Your task to perform on an android device: Open display settings Image 0: 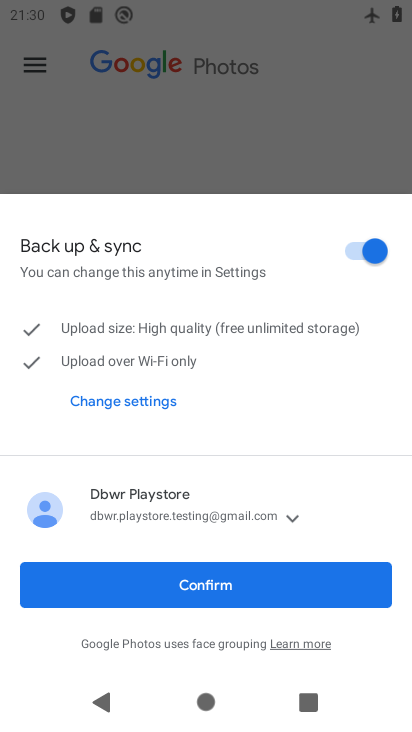
Step 0: press home button
Your task to perform on an android device: Open display settings Image 1: 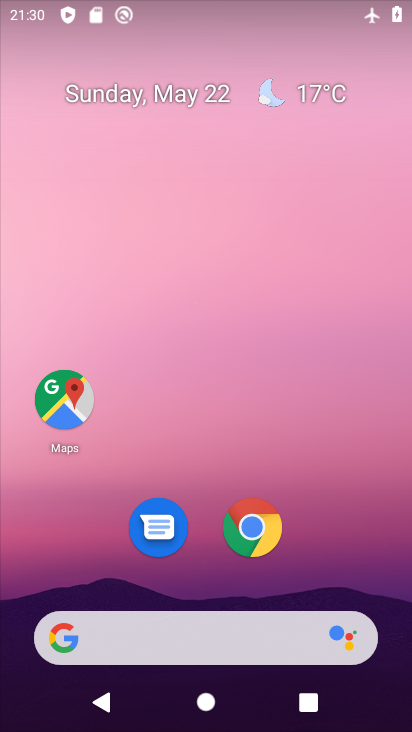
Step 1: click (236, 43)
Your task to perform on an android device: Open display settings Image 2: 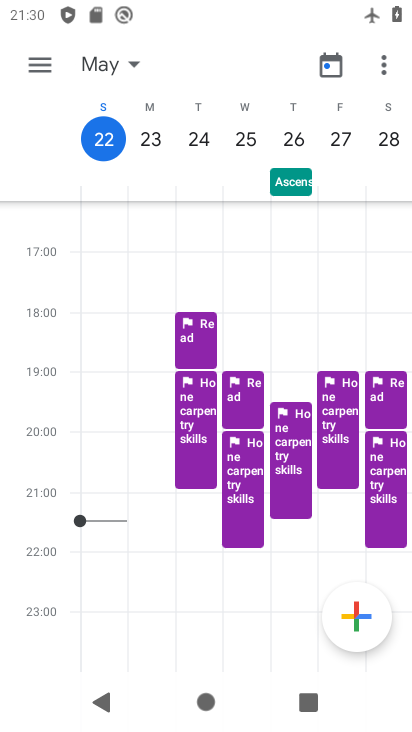
Step 2: press home button
Your task to perform on an android device: Open display settings Image 3: 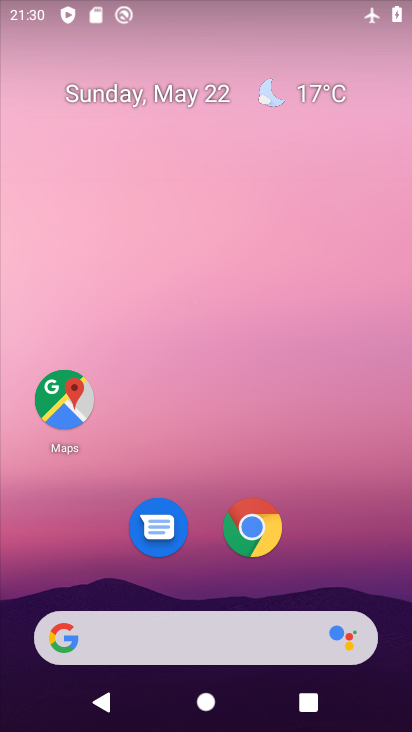
Step 3: drag from (339, 557) to (226, 31)
Your task to perform on an android device: Open display settings Image 4: 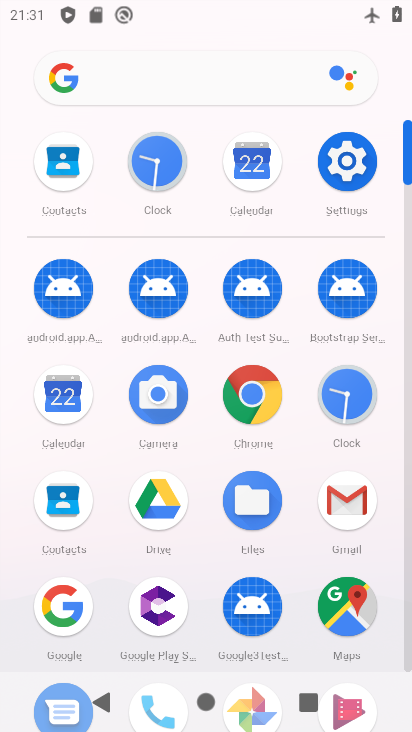
Step 4: click (337, 161)
Your task to perform on an android device: Open display settings Image 5: 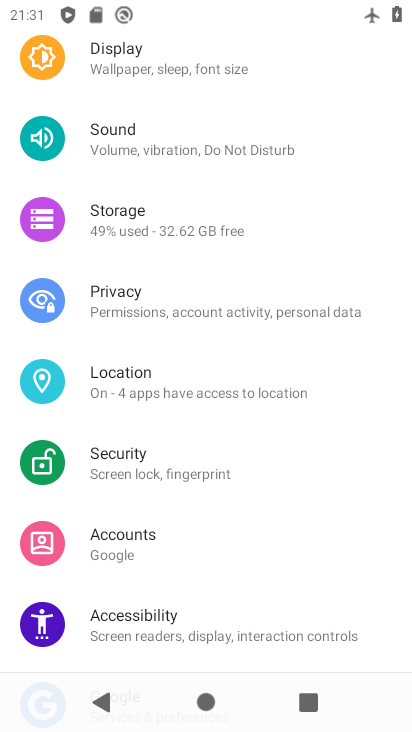
Step 5: click (110, 47)
Your task to perform on an android device: Open display settings Image 6: 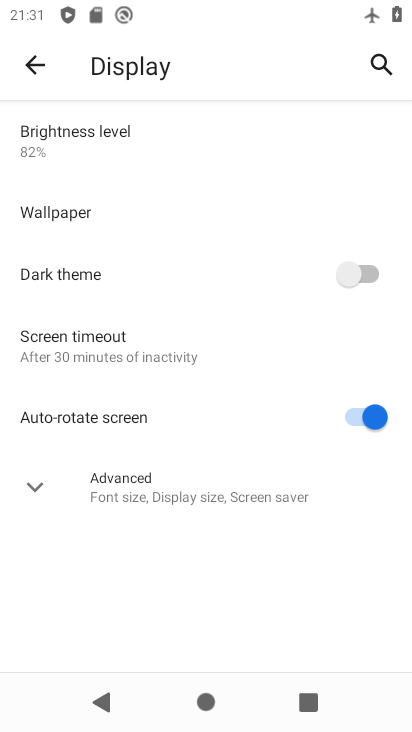
Step 6: task complete